Your task to perform on an android device: clear all cookies in the chrome app Image 0: 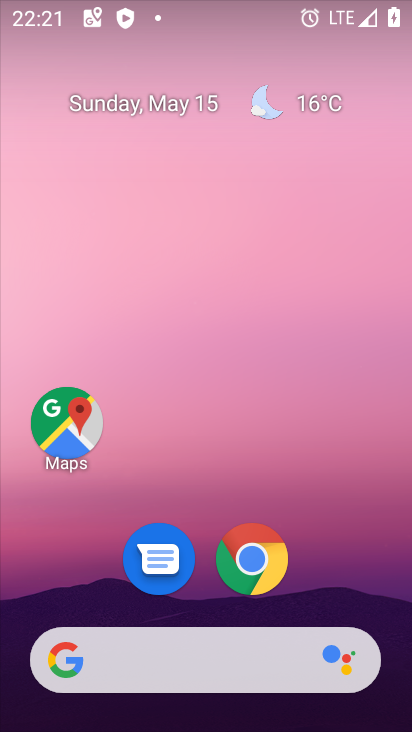
Step 0: click (255, 554)
Your task to perform on an android device: clear all cookies in the chrome app Image 1: 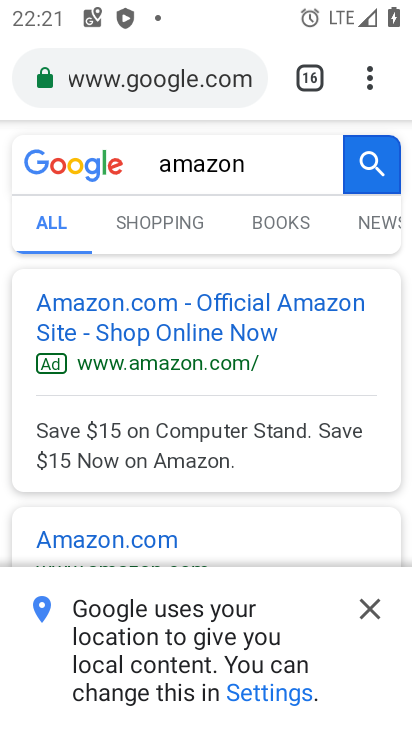
Step 1: click (366, 76)
Your task to perform on an android device: clear all cookies in the chrome app Image 2: 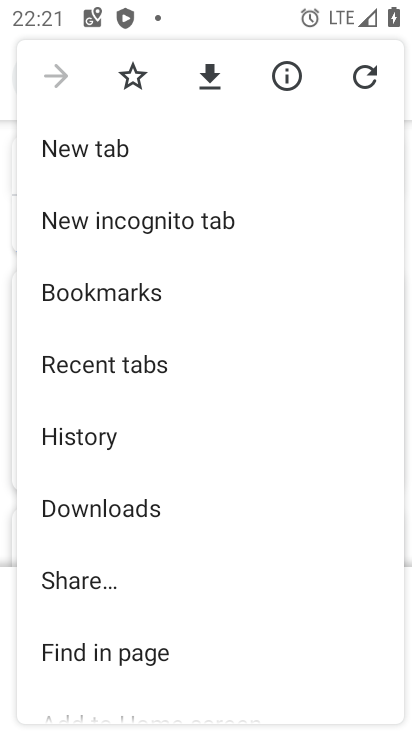
Step 2: drag from (241, 586) to (145, 144)
Your task to perform on an android device: clear all cookies in the chrome app Image 3: 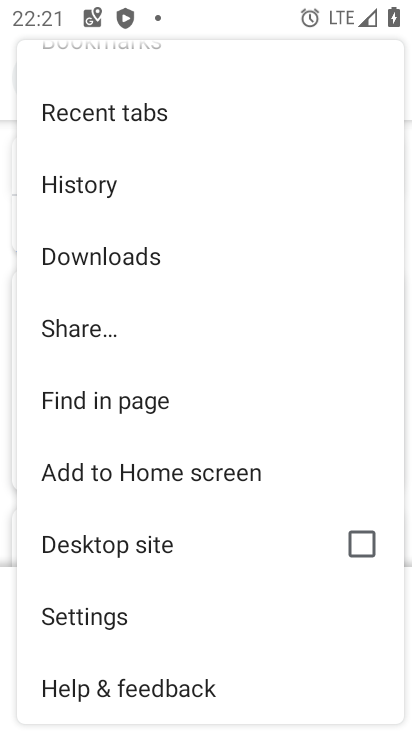
Step 3: click (86, 626)
Your task to perform on an android device: clear all cookies in the chrome app Image 4: 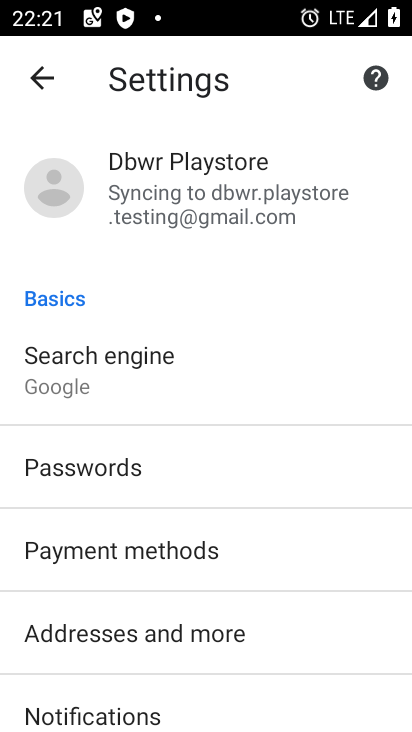
Step 4: drag from (266, 564) to (200, 250)
Your task to perform on an android device: clear all cookies in the chrome app Image 5: 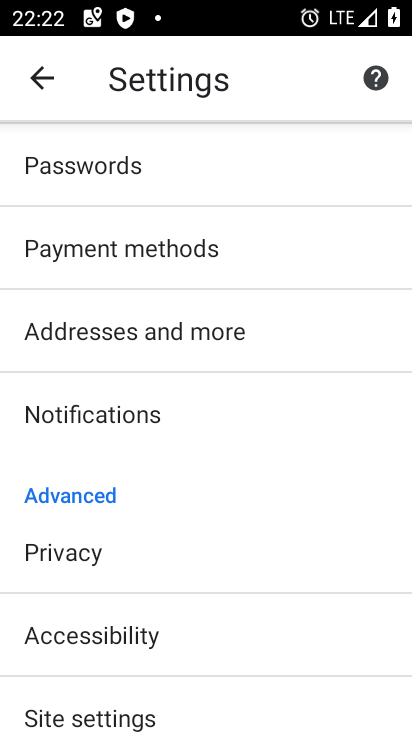
Step 5: click (62, 542)
Your task to perform on an android device: clear all cookies in the chrome app Image 6: 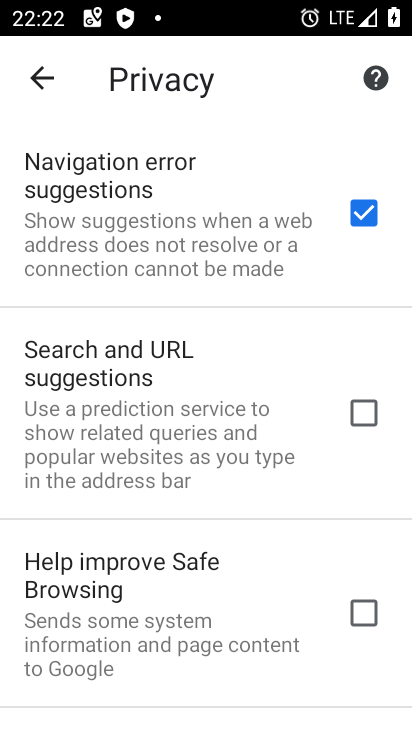
Step 6: drag from (259, 521) to (169, 39)
Your task to perform on an android device: clear all cookies in the chrome app Image 7: 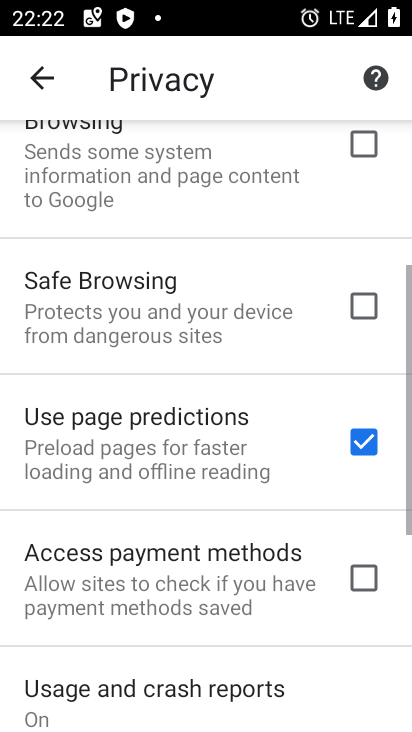
Step 7: drag from (234, 549) to (174, 215)
Your task to perform on an android device: clear all cookies in the chrome app Image 8: 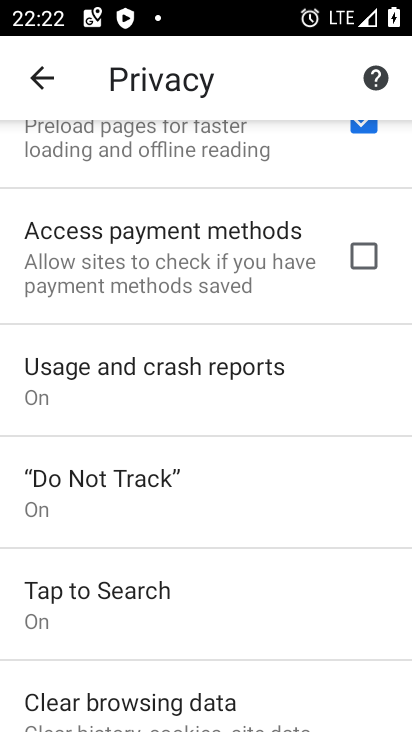
Step 8: drag from (230, 557) to (196, 255)
Your task to perform on an android device: clear all cookies in the chrome app Image 9: 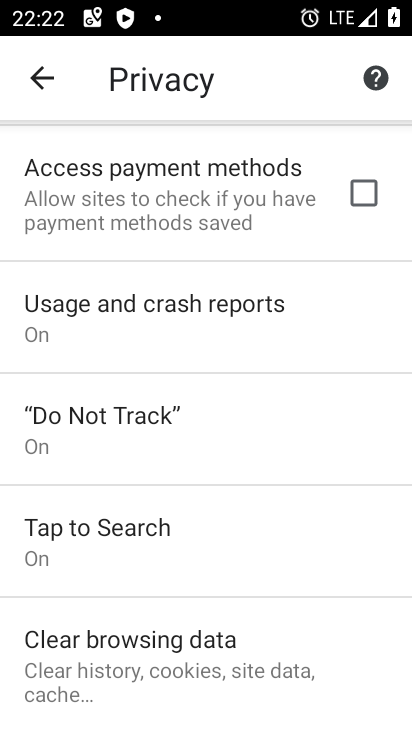
Step 9: click (159, 632)
Your task to perform on an android device: clear all cookies in the chrome app Image 10: 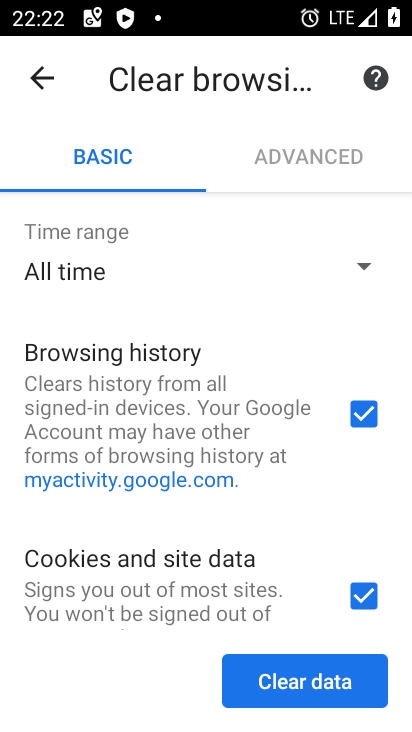
Step 10: drag from (279, 477) to (239, 157)
Your task to perform on an android device: clear all cookies in the chrome app Image 11: 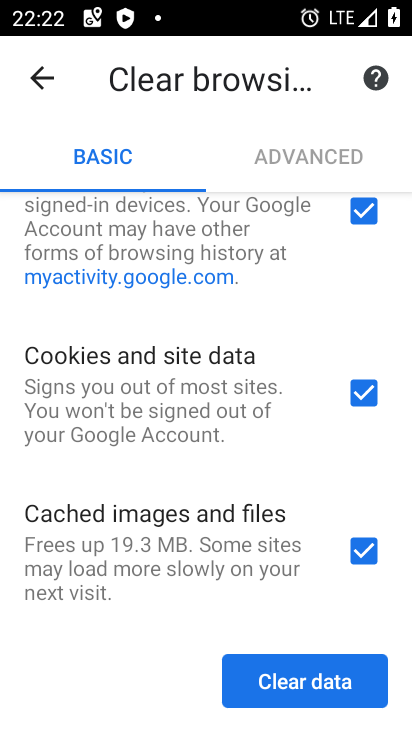
Step 11: click (375, 211)
Your task to perform on an android device: clear all cookies in the chrome app Image 12: 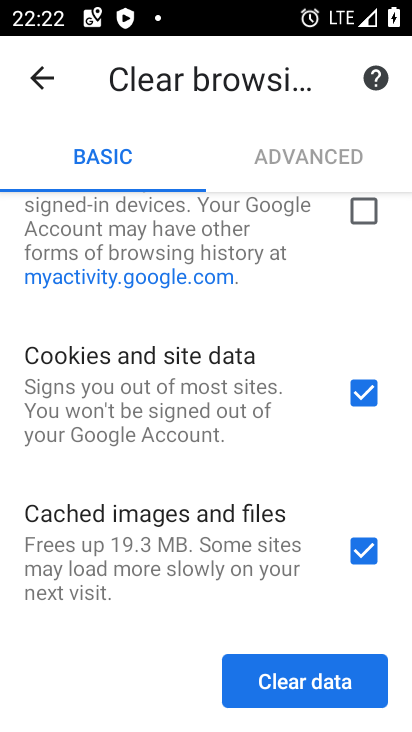
Step 12: click (366, 556)
Your task to perform on an android device: clear all cookies in the chrome app Image 13: 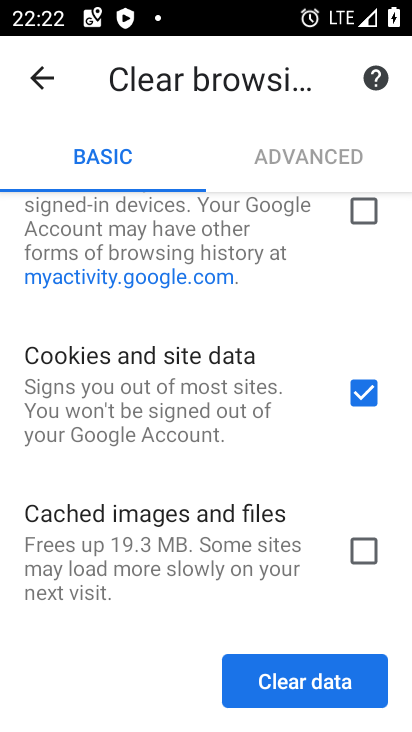
Step 13: click (297, 697)
Your task to perform on an android device: clear all cookies in the chrome app Image 14: 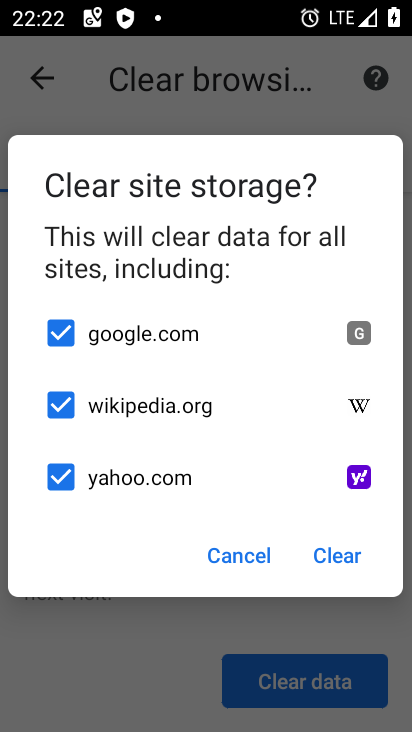
Step 14: click (321, 555)
Your task to perform on an android device: clear all cookies in the chrome app Image 15: 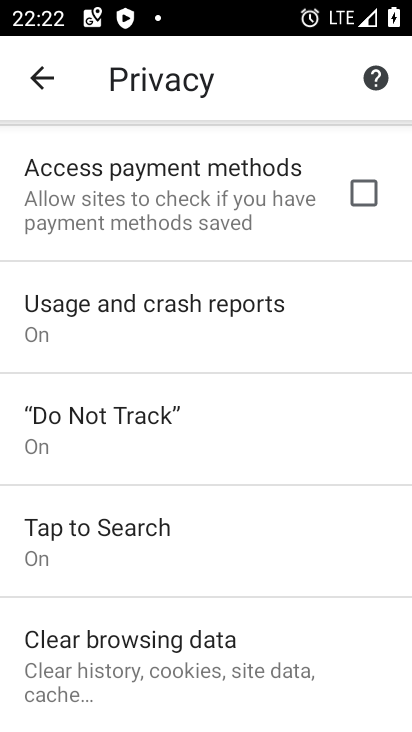
Step 15: task complete